Your task to perform on an android device: Is it going to rain tomorrow? Image 0: 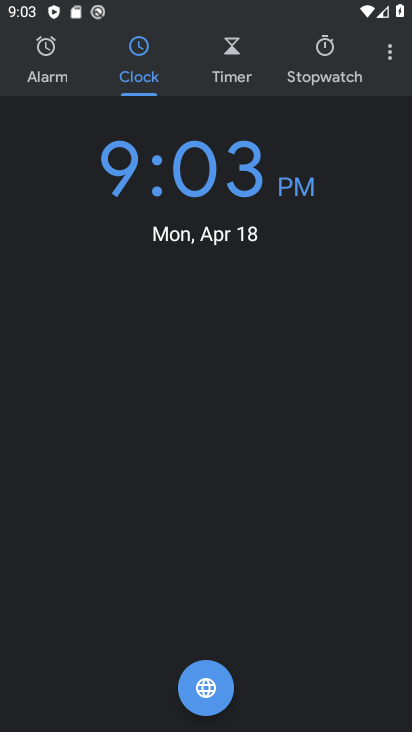
Step 0: press back button
Your task to perform on an android device: Is it going to rain tomorrow? Image 1: 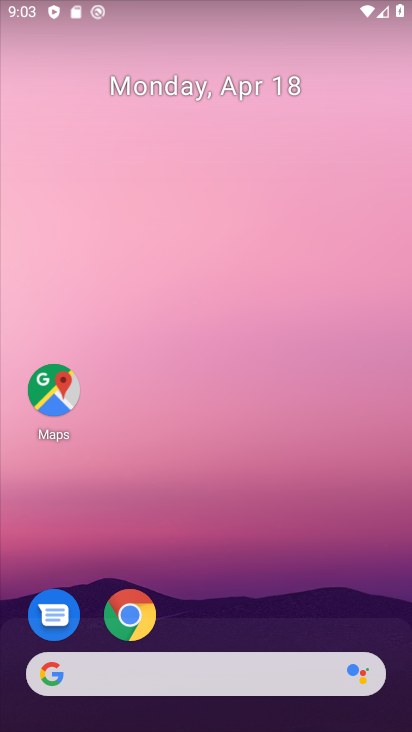
Step 1: drag from (190, 626) to (200, 330)
Your task to perform on an android device: Is it going to rain tomorrow? Image 2: 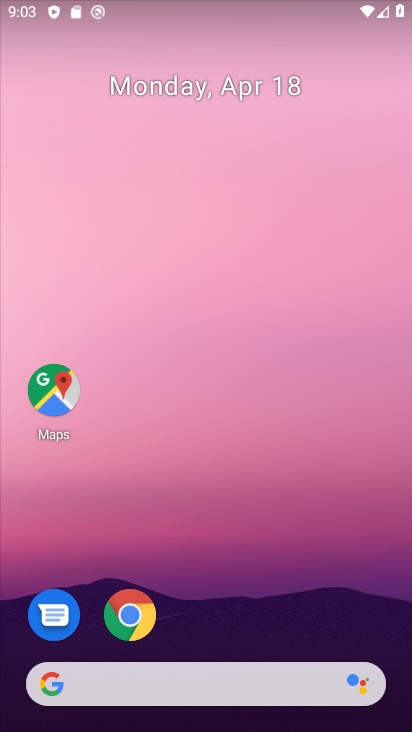
Step 2: drag from (209, 658) to (207, 246)
Your task to perform on an android device: Is it going to rain tomorrow? Image 3: 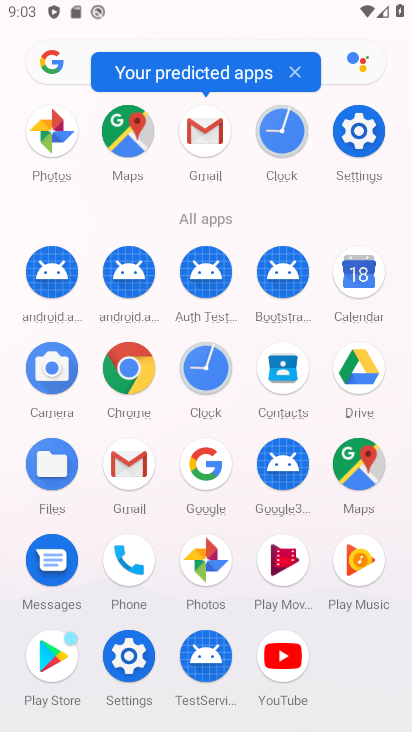
Step 3: click (216, 456)
Your task to perform on an android device: Is it going to rain tomorrow? Image 4: 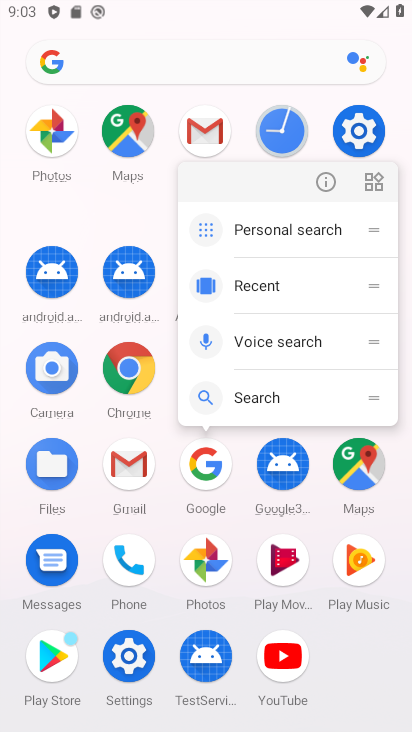
Step 4: click (206, 470)
Your task to perform on an android device: Is it going to rain tomorrow? Image 5: 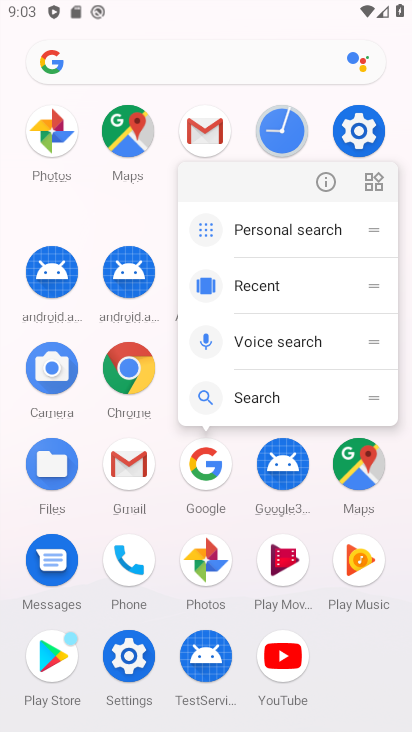
Step 5: click (205, 464)
Your task to perform on an android device: Is it going to rain tomorrow? Image 6: 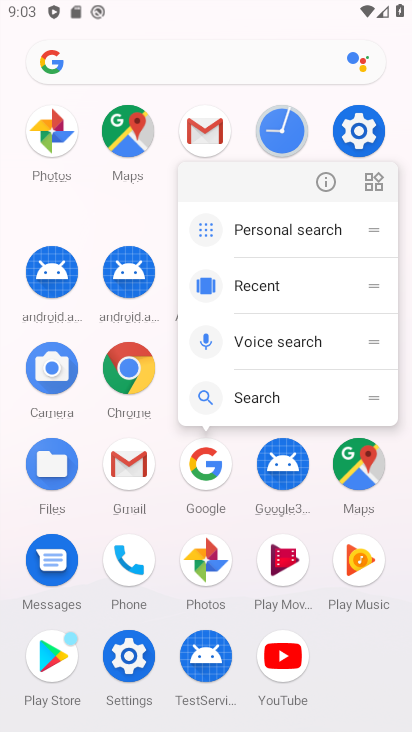
Step 6: click (241, 396)
Your task to perform on an android device: Is it going to rain tomorrow? Image 7: 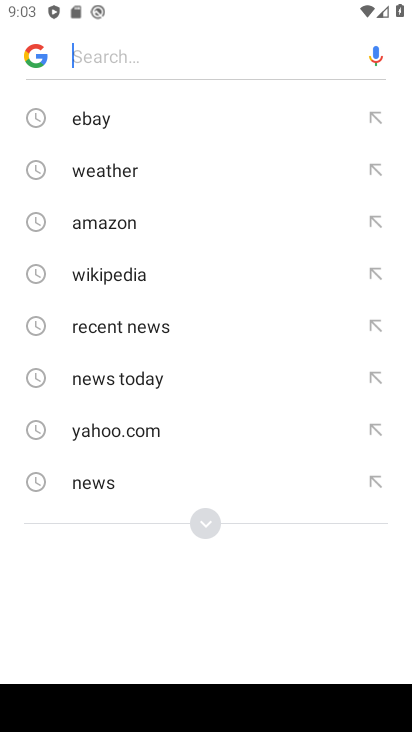
Step 7: type "is it going to rain tomorrow?"
Your task to perform on an android device: Is it going to rain tomorrow? Image 8: 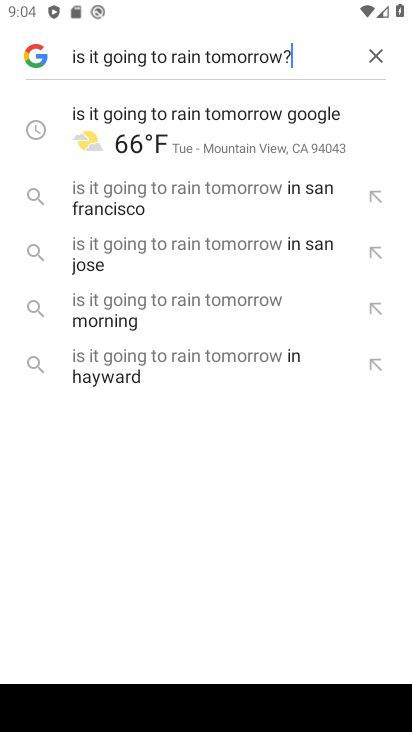
Step 8: click (235, 120)
Your task to perform on an android device: Is it going to rain tomorrow? Image 9: 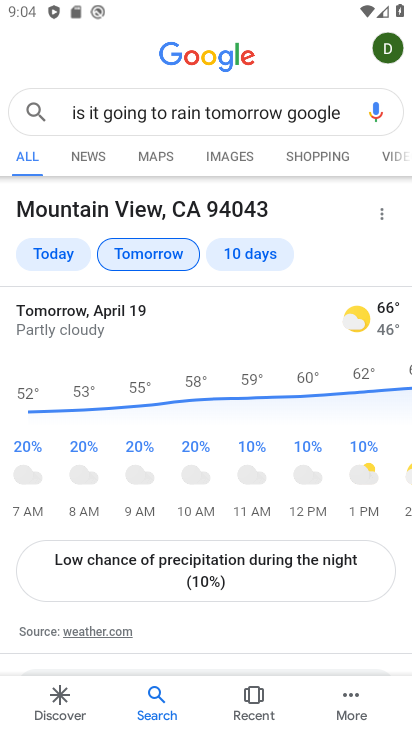
Step 9: task complete